Your task to perform on an android device: Empty the shopping cart on bestbuy. Add "lenovo thinkpad" to the cart on bestbuy Image 0: 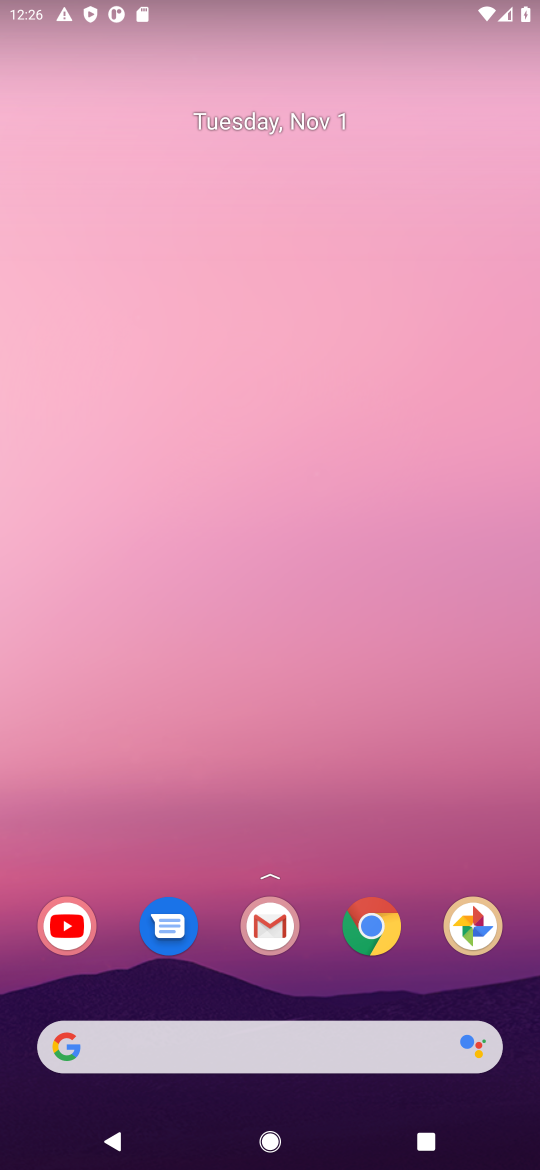
Step 0: click (367, 928)
Your task to perform on an android device: Empty the shopping cart on bestbuy. Add "lenovo thinkpad" to the cart on bestbuy Image 1: 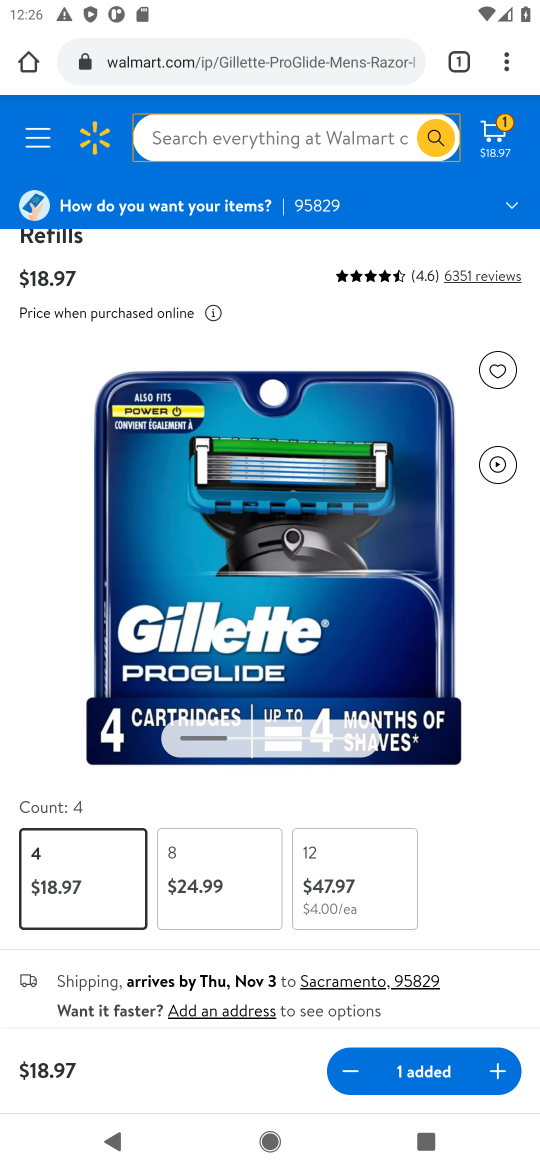
Step 1: click (243, 73)
Your task to perform on an android device: Empty the shopping cart on bestbuy. Add "lenovo thinkpad" to the cart on bestbuy Image 2: 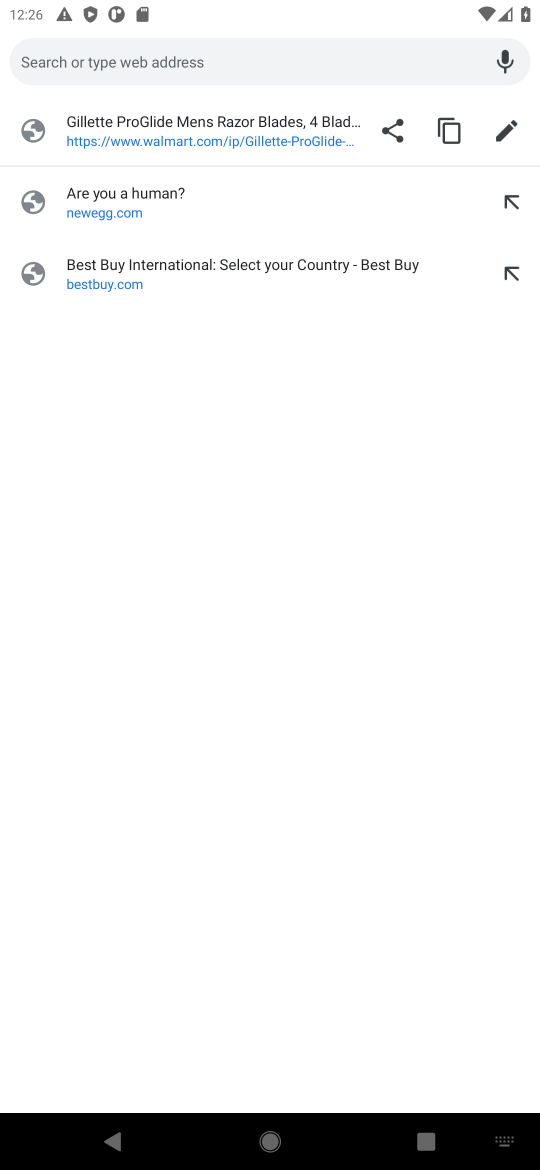
Step 2: type "bestbuy"
Your task to perform on an android device: Empty the shopping cart on bestbuy. Add "lenovo thinkpad" to the cart on bestbuy Image 3: 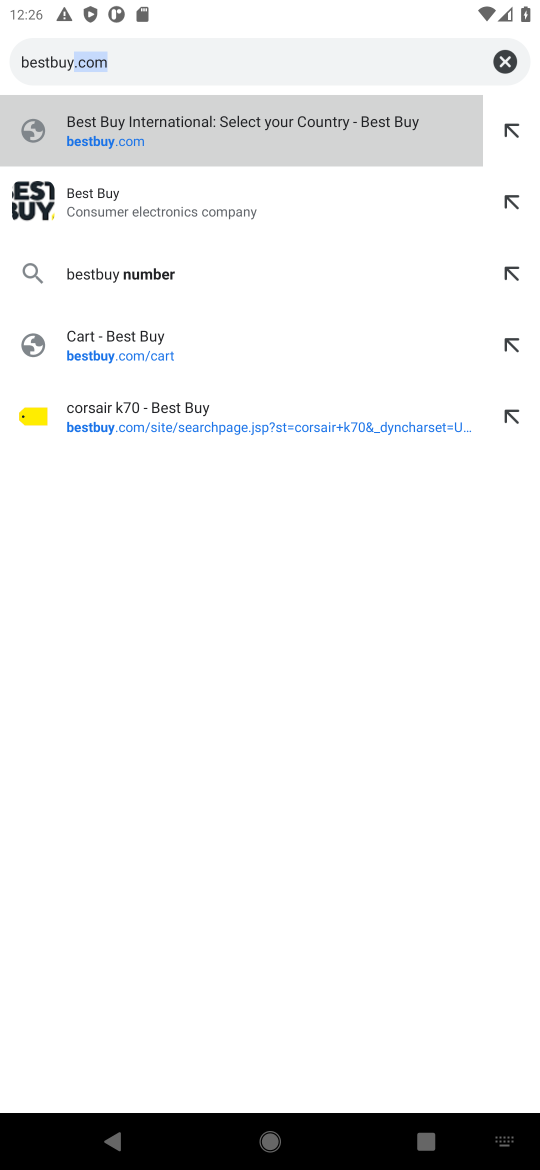
Step 3: press enter
Your task to perform on an android device: Empty the shopping cart on bestbuy. Add "lenovo thinkpad" to the cart on bestbuy Image 4: 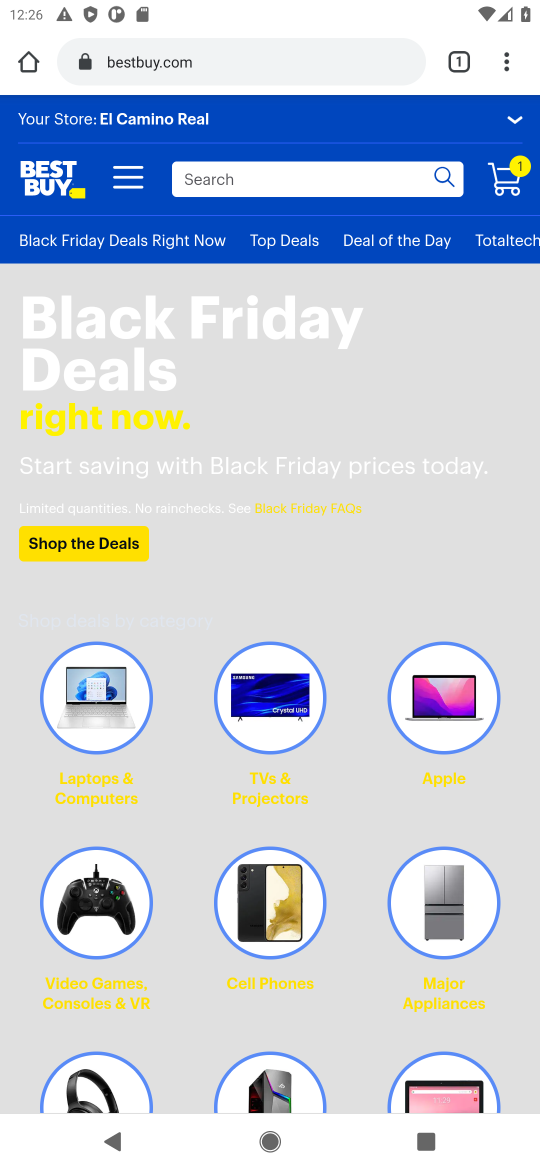
Step 4: click (511, 180)
Your task to perform on an android device: Empty the shopping cart on bestbuy. Add "lenovo thinkpad" to the cart on bestbuy Image 5: 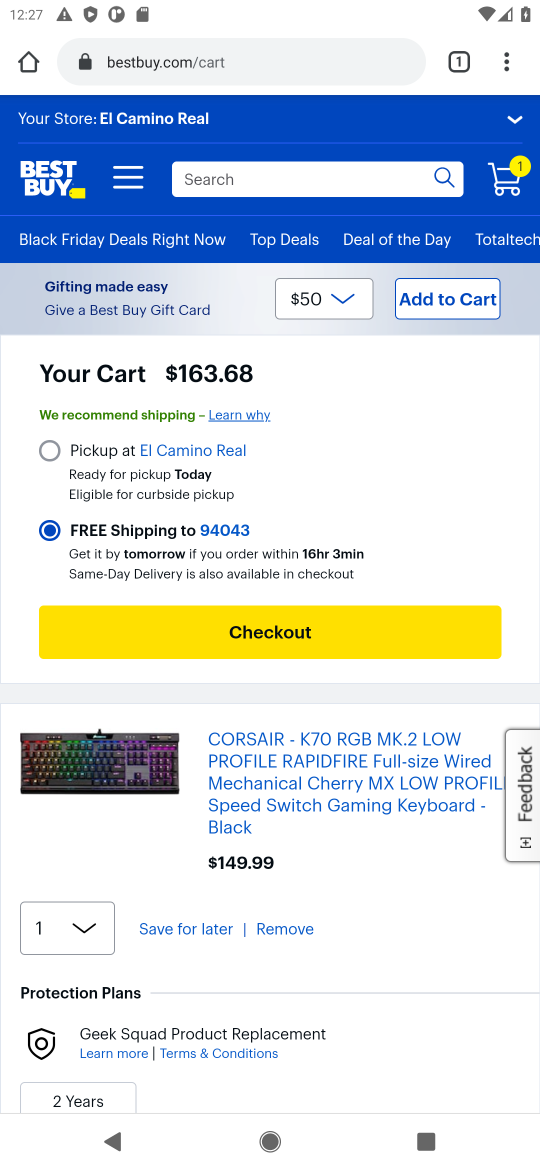
Step 5: click (277, 924)
Your task to perform on an android device: Empty the shopping cart on bestbuy. Add "lenovo thinkpad" to the cart on bestbuy Image 6: 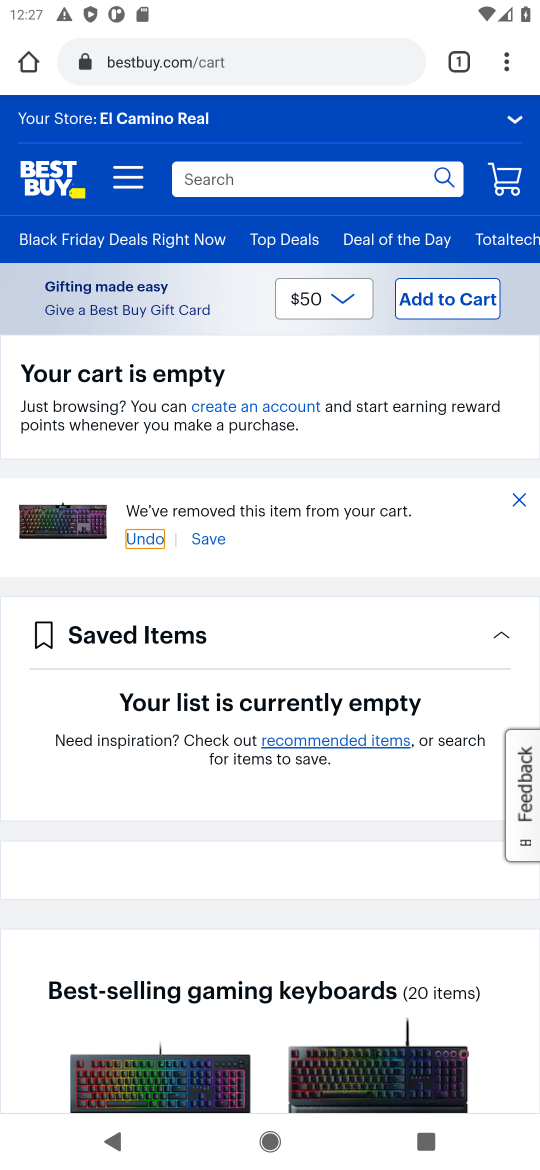
Step 6: click (277, 180)
Your task to perform on an android device: Empty the shopping cart on bestbuy. Add "lenovo thinkpad" to the cart on bestbuy Image 7: 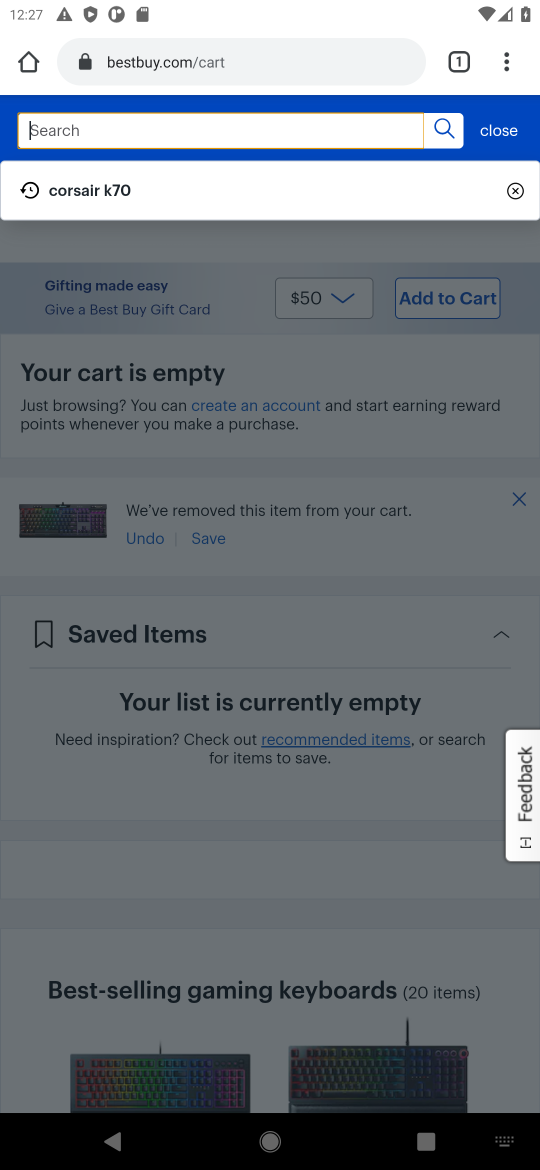
Step 7: type "lenovo thikpad"
Your task to perform on an android device: Empty the shopping cart on bestbuy. Add "lenovo thinkpad" to the cart on bestbuy Image 8: 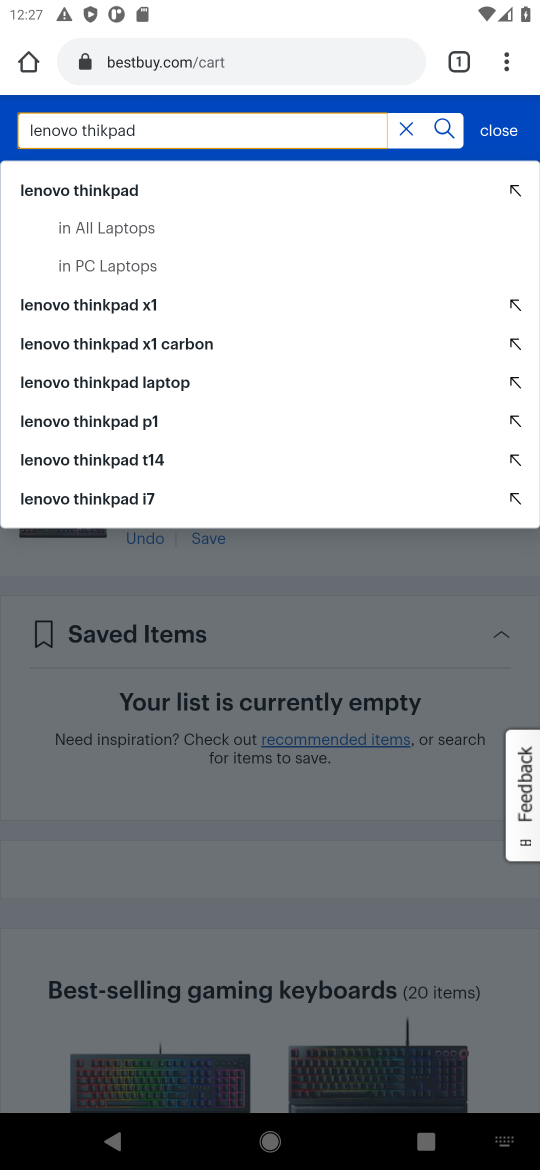
Step 8: click (109, 192)
Your task to perform on an android device: Empty the shopping cart on bestbuy. Add "lenovo thinkpad" to the cart on bestbuy Image 9: 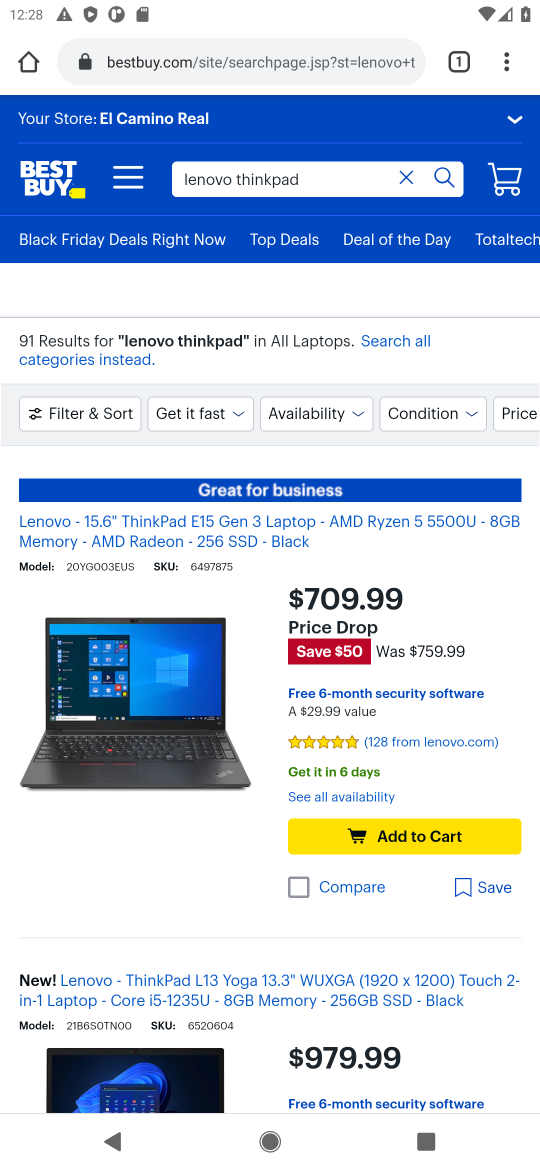
Step 9: click (378, 784)
Your task to perform on an android device: Empty the shopping cart on bestbuy. Add "lenovo thinkpad" to the cart on bestbuy Image 10: 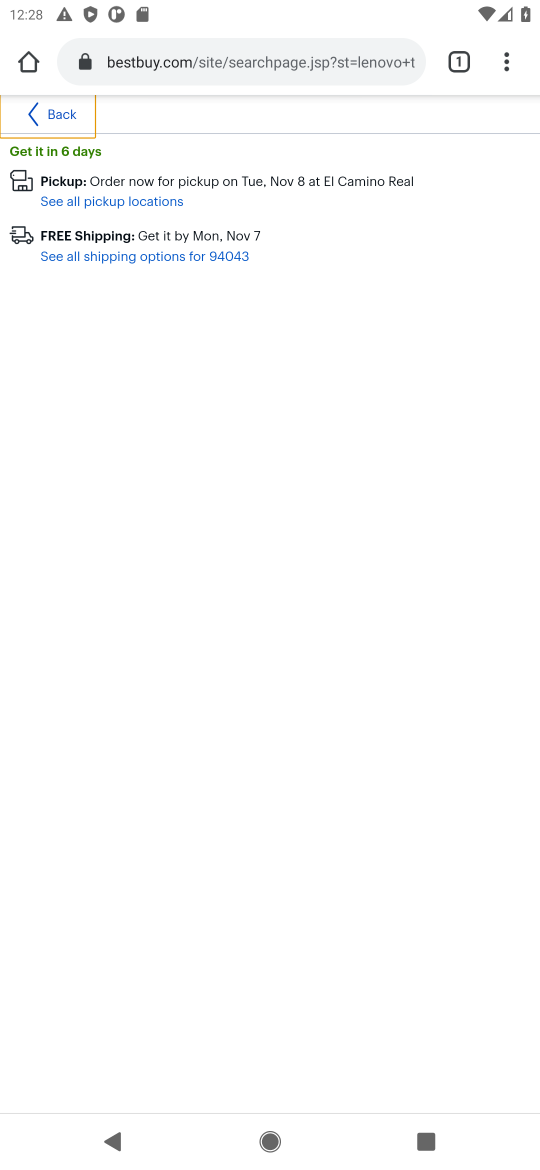
Step 10: task complete